Your task to perform on an android device: choose inbox layout in the gmail app Image 0: 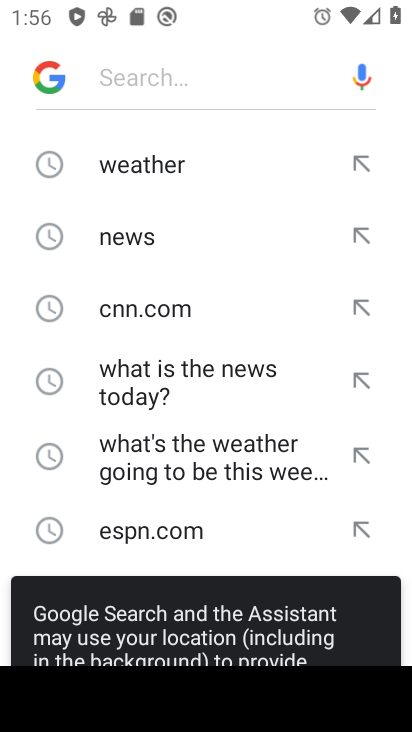
Step 0: press back button
Your task to perform on an android device: choose inbox layout in the gmail app Image 1: 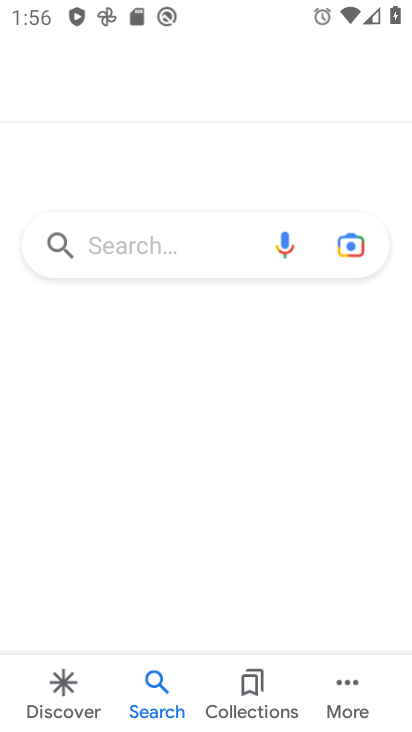
Step 1: press back button
Your task to perform on an android device: choose inbox layout in the gmail app Image 2: 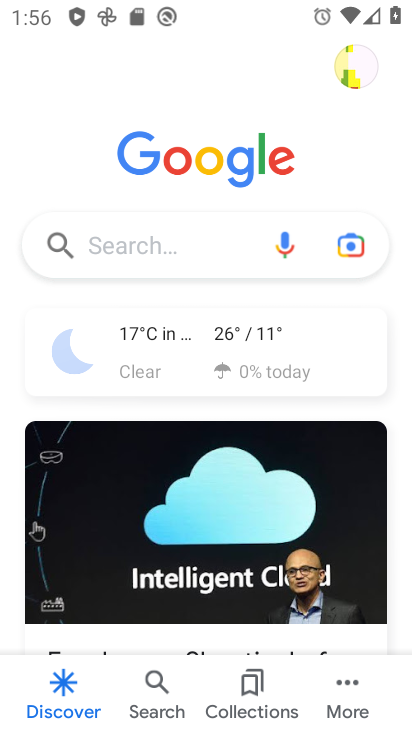
Step 2: press back button
Your task to perform on an android device: choose inbox layout in the gmail app Image 3: 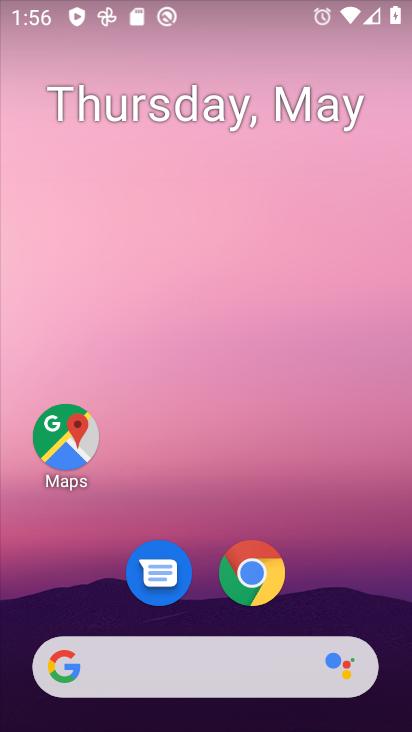
Step 3: drag from (368, 351) to (380, 217)
Your task to perform on an android device: choose inbox layout in the gmail app Image 4: 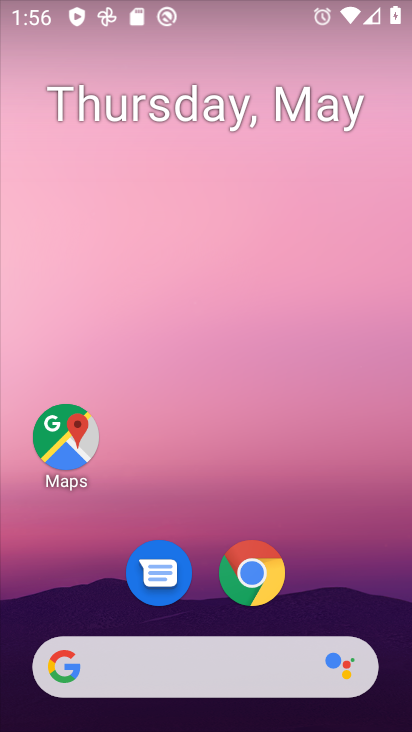
Step 4: drag from (391, 699) to (360, 143)
Your task to perform on an android device: choose inbox layout in the gmail app Image 5: 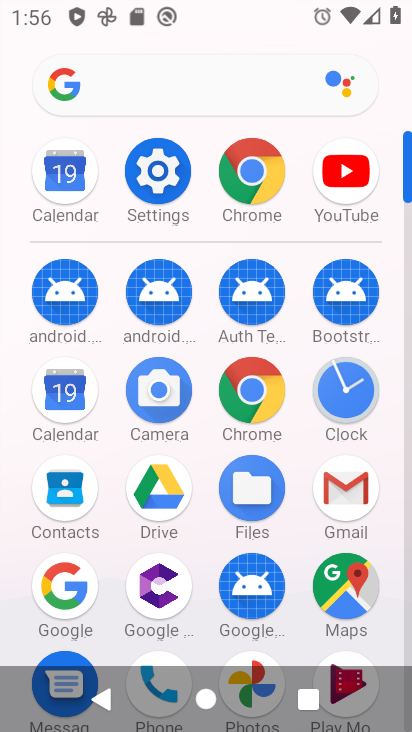
Step 5: click (355, 490)
Your task to perform on an android device: choose inbox layout in the gmail app Image 6: 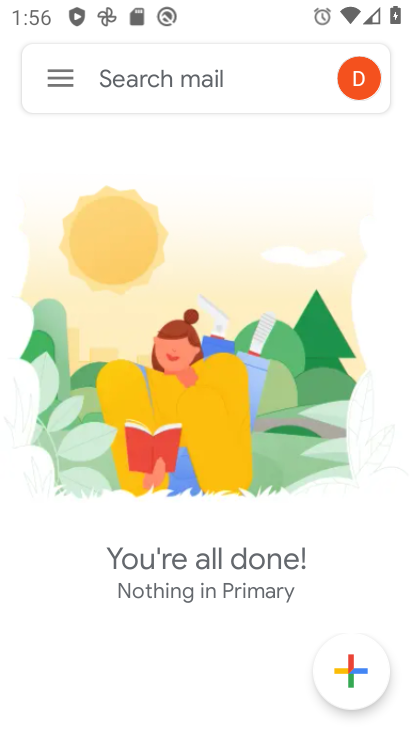
Step 6: click (59, 71)
Your task to perform on an android device: choose inbox layout in the gmail app Image 7: 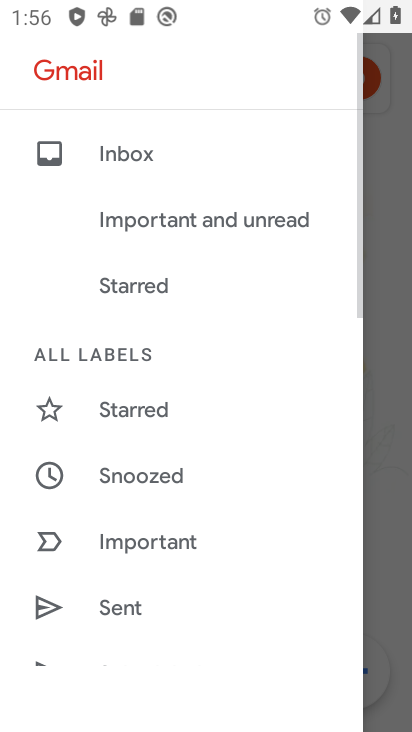
Step 7: drag from (198, 639) to (250, 152)
Your task to perform on an android device: choose inbox layout in the gmail app Image 8: 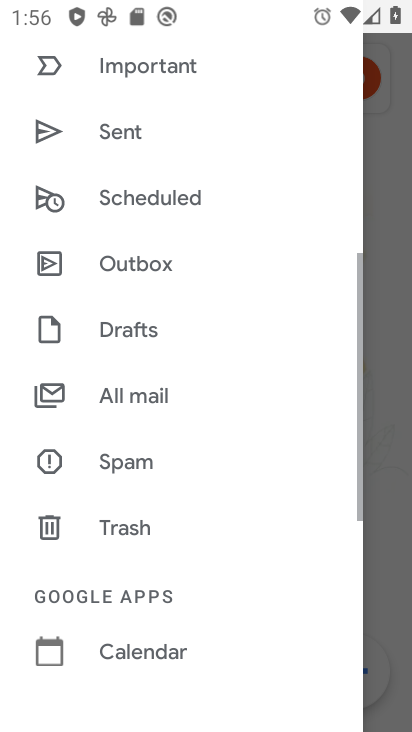
Step 8: drag from (238, 641) to (267, 349)
Your task to perform on an android device: choose inbox layout in the gmail app Image 9: 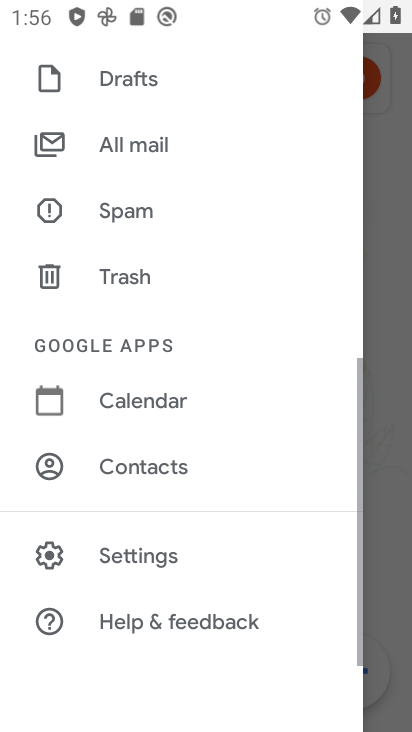
Step 9: click (117, 548)
Your task to perform on an android device: choose inbox layout in the gmail app Image 10: 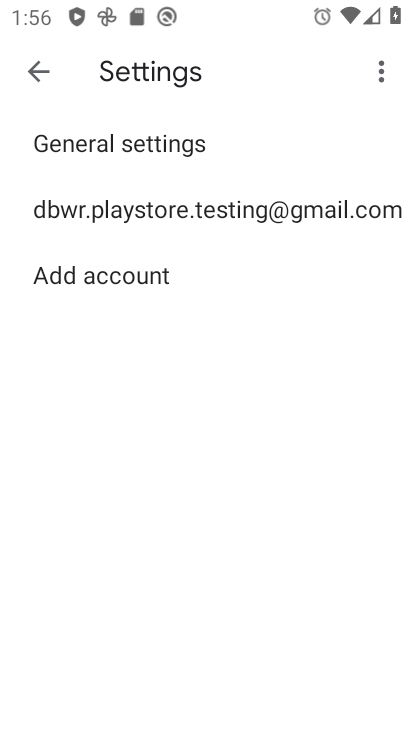
Step 10: click (91, 212)
Your task to perform on an android device: choose inbox layout in the gmail app Image 11: 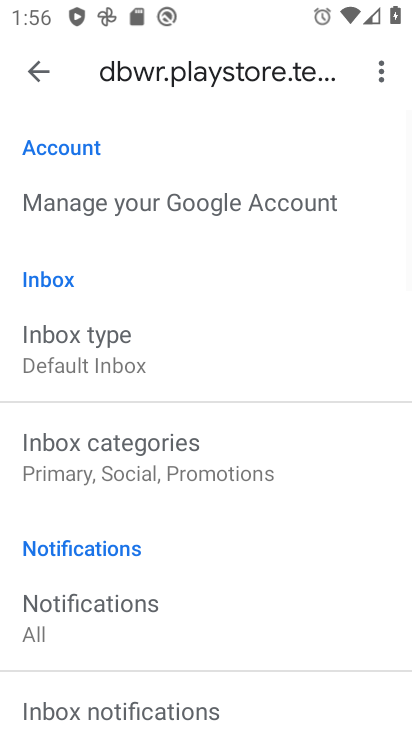
Step 11: click (73, 347)
Your task to perform on an android device: choose inbox layout in the gmail app Image 12: 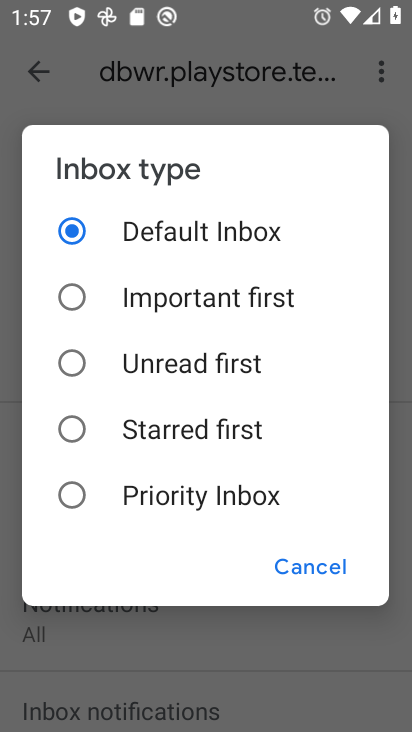
Step 12: click (76, 489)
Your task to perform on an android device: choose inbox layout in the gmail app Image 13: 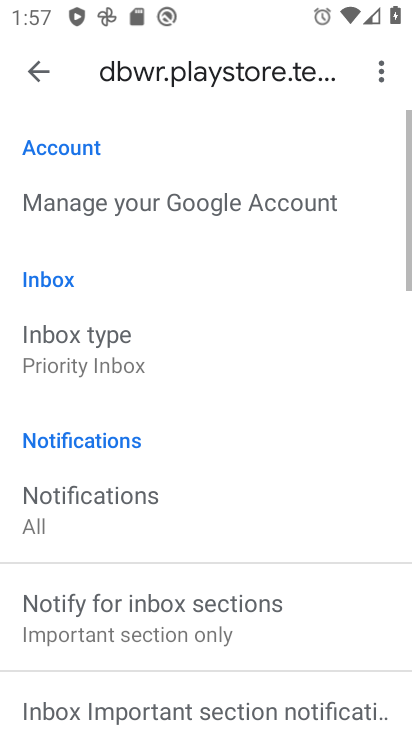
Step 13: task complete